Your task to perform on an android device: open chrome and create a bookmark for the current page Image 0: 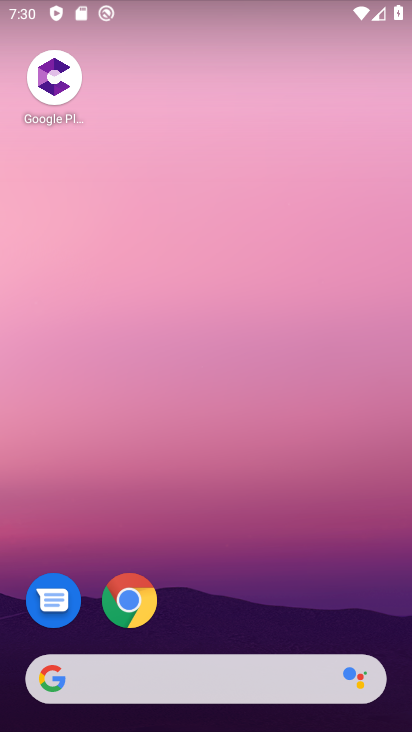
Step 0: click (131, 598)
Your task to perform on an android device: open chrome and create a bookmark for the current page Image 1: 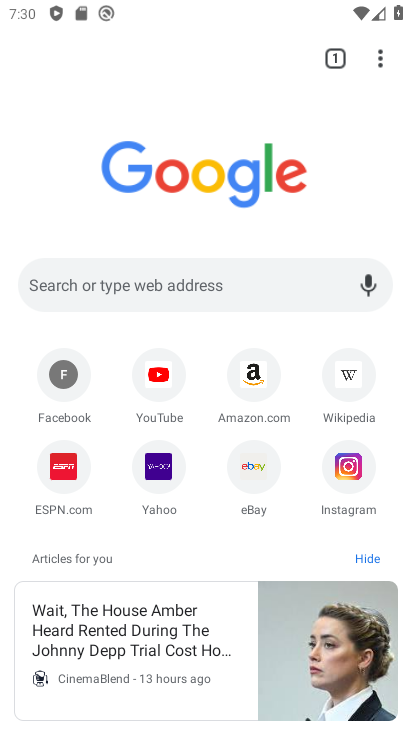
Step 1: click (373, 51)
Your task to perform on an android device: open chrome and create a bookmark for the current page Image 2: 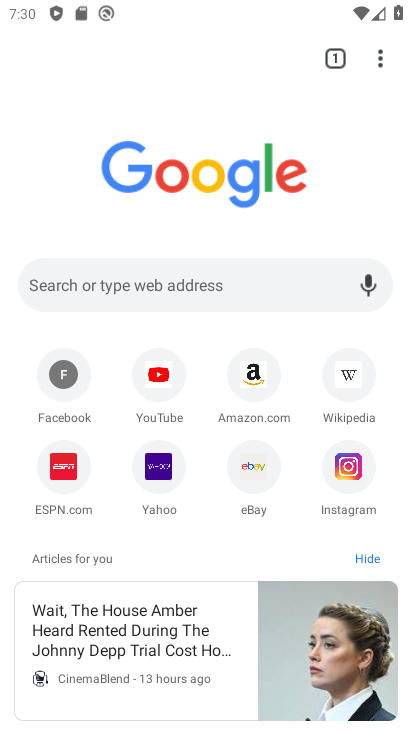
Step 2: click (383, 57)
Your task to perform on an android device: open chrome and create a bookmark for the current page Image 3: 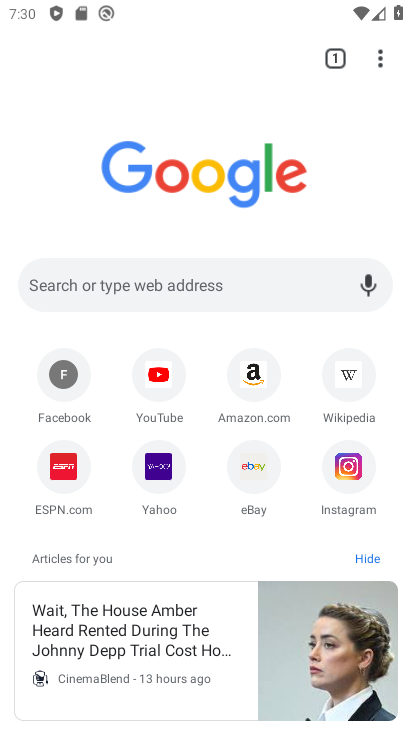
Step 3: click (383, 57)
Your task to perform on an android device: open chrome and create a bookmark for the current page Image 4: 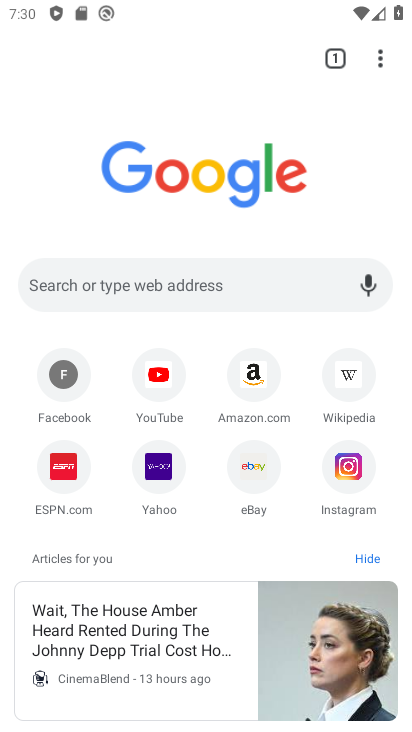
Step 4: click (383, 57)
Your task to perform on an android device: open chrome and create a bookmark for the current page Image 5: 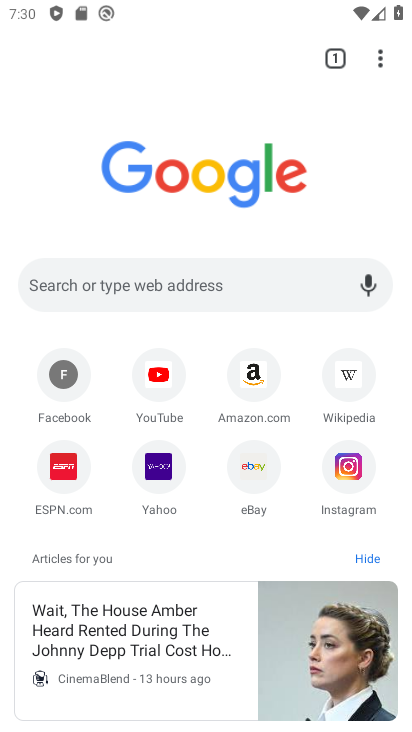
Step 5: click (383, 57)
Your task to perform on an android device: open chrome and create a bookmark for the current page Image 6: 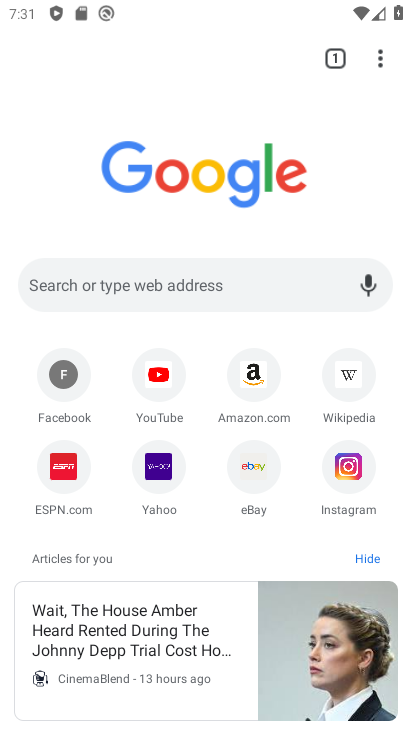
Step 6: click (377, 61)
Your task to perform on an android device: open chrome and create a bookmark for the current page Image 7: 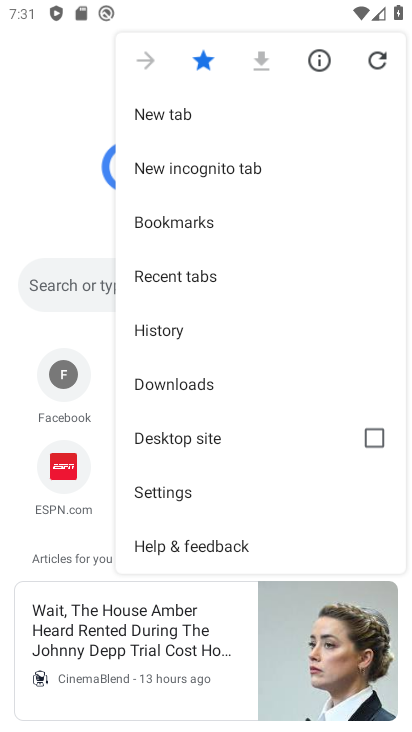
Step 7: task complete